Your task to perform on an android device: turn on translation in the chrome app Image 0: 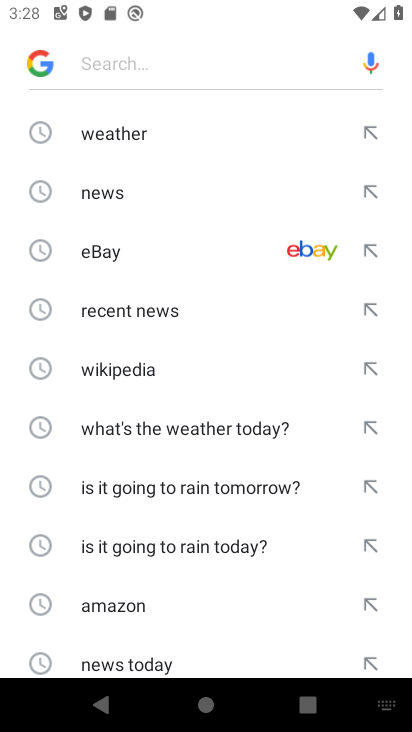
Step 0: drag from (230, 606) to (235, 276)
Your task to perform on an android device: turn on translation in the chrome app Image 1: 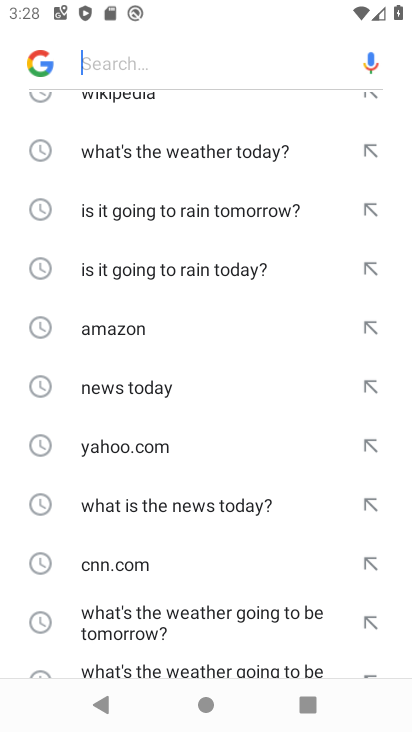
Step 1: press home button
Your task to perform on an android device: turn on translation in the chrome app Image 2: 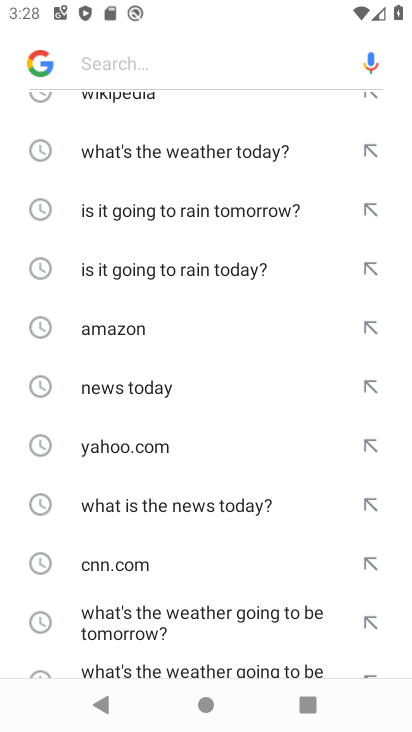
Step 2: press home button
Your task to perform on an android device: turn on translation in the chrome app Image 3: 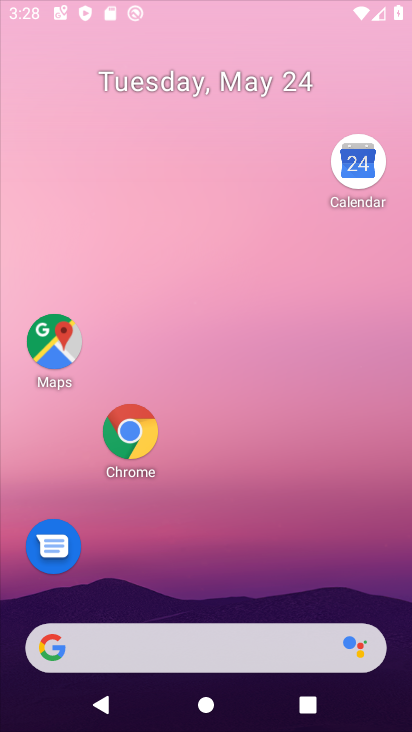
Step 3: press home button
Your task to perform on an android device: turn on translation in the chrome app Image 4: 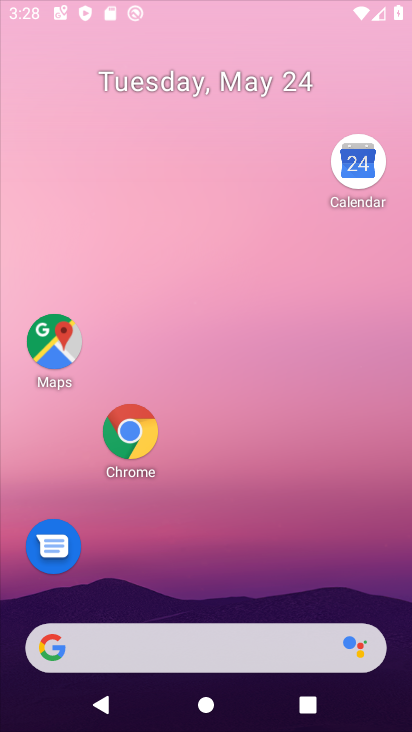
Step 4: drag from (195, 567) to (313, 26)
Your task to perform on an android device: turn on translation in the chrome app Image 5: 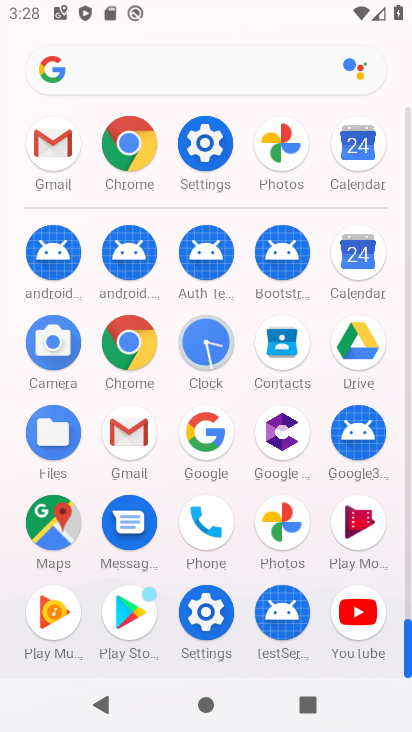
Step 5: drag from (228, 574) to (233, 182)
Your task to perform on an android device: turn on translation in the chrome app Image 6: 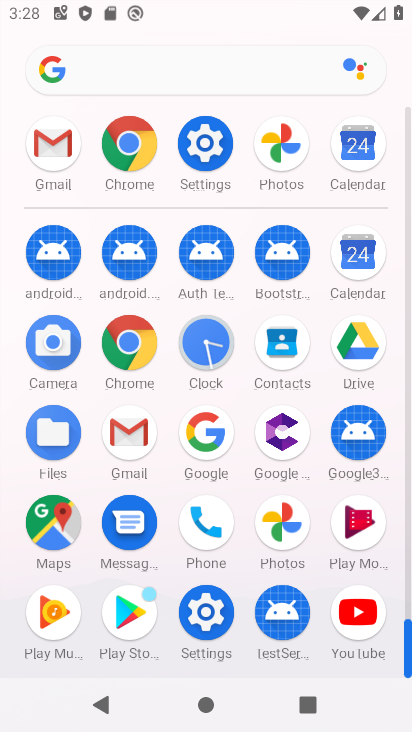
Step 6: drag from (255, 582) to (228, 203)
Your task to perform on an android device: turn on translation in the chrome app Image 7: 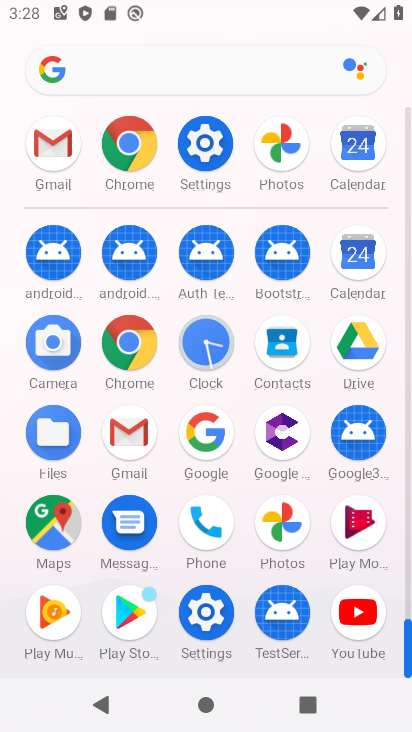
Step 7: click (115, 349)
Your task to perform on an android device: turn on translation in the chrome app Image 8: 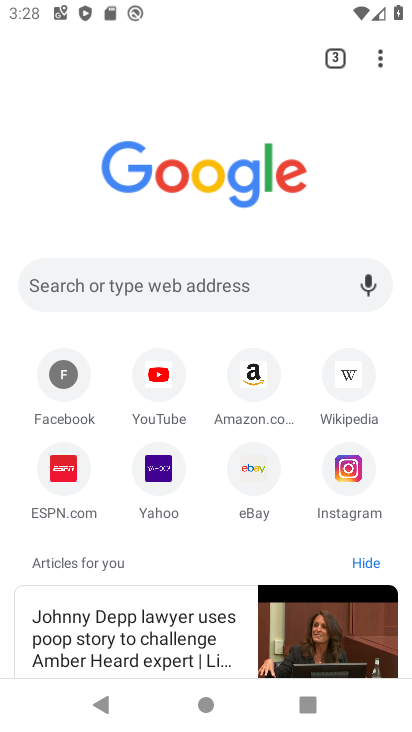
Step 8: click (375, 61)
Your task to perform on an android device: turn on translation in the chrome app Image 9: 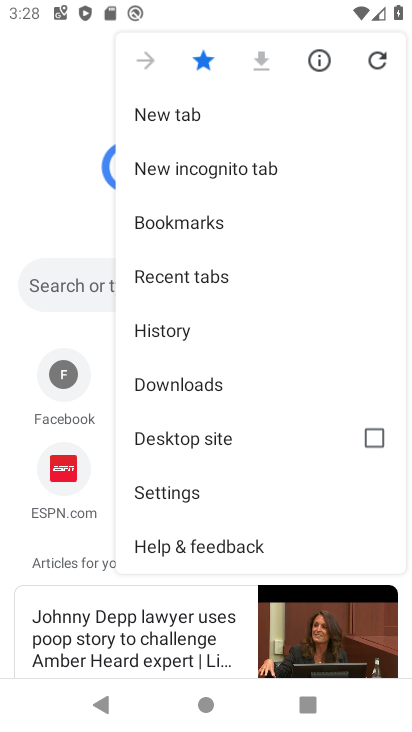
Step 9: click (196, 489)
Your task to perform on an android device: turn on translation in the chrome app Image 10: 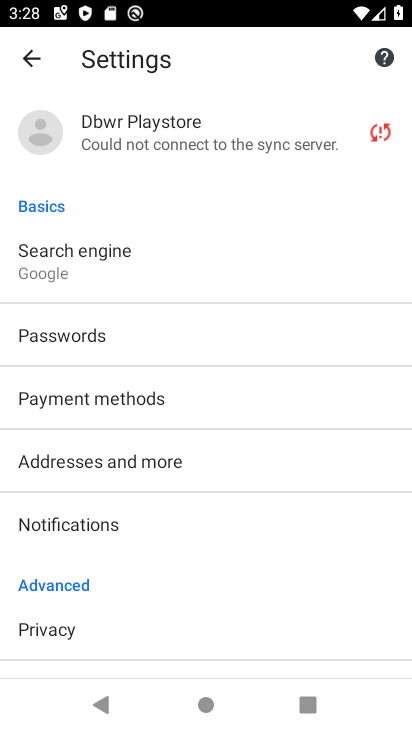
Step 10: drag from (171, 578) to (202, 238)
Your task to perform on an android device: turn on translation in the chrome app Image 11: 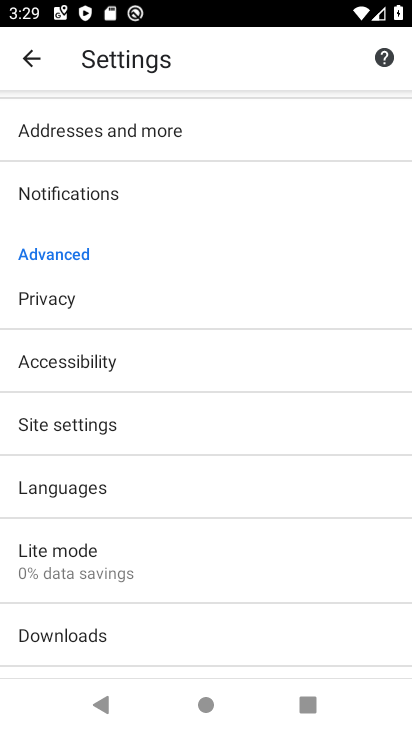
Step 11: click (123, 482)
Your task to perform on an android device: turn on translation in the chrome app Image 12: 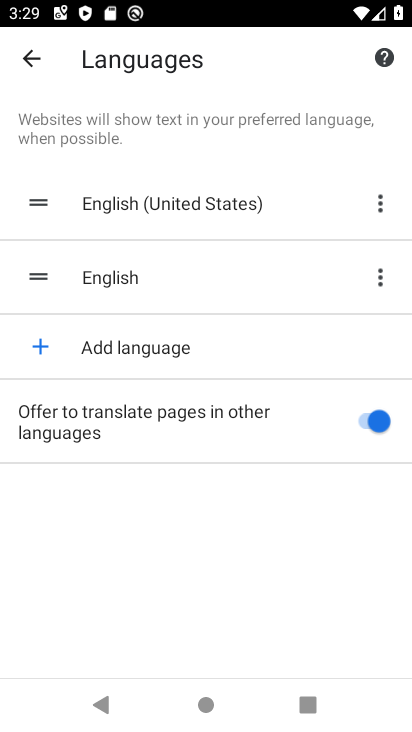
Step 12: click (364, 417)
Your task to perform on an android device: turn on translation in the chrome app Image 13: 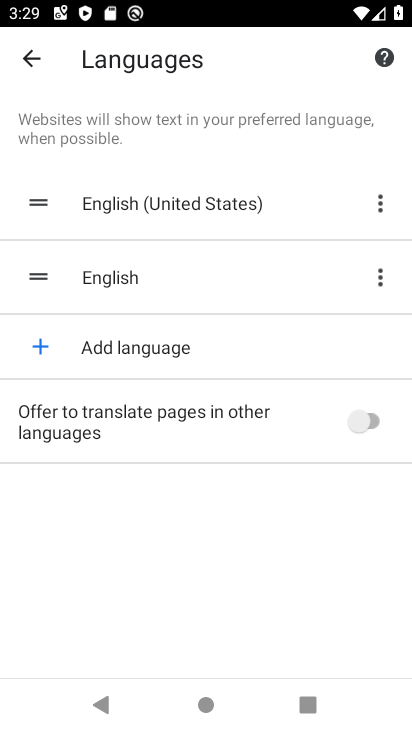
Step 13: click (337, 425)
Your task to perform on an android device: turn on translation in the chrome app Image 14: 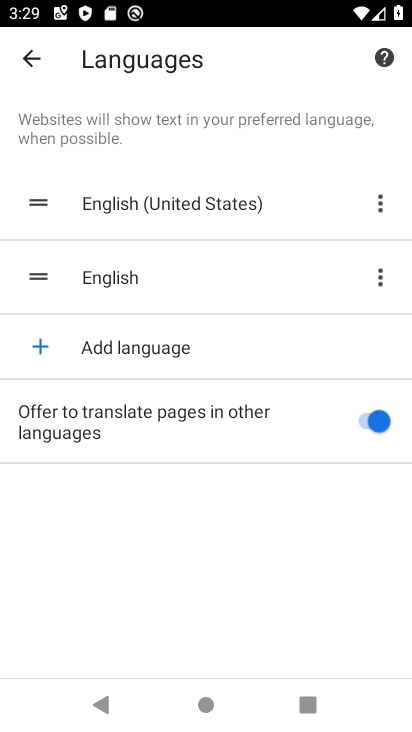
Step 14: task complete